Your task to perform on an android device: Open internet settings Image 0: 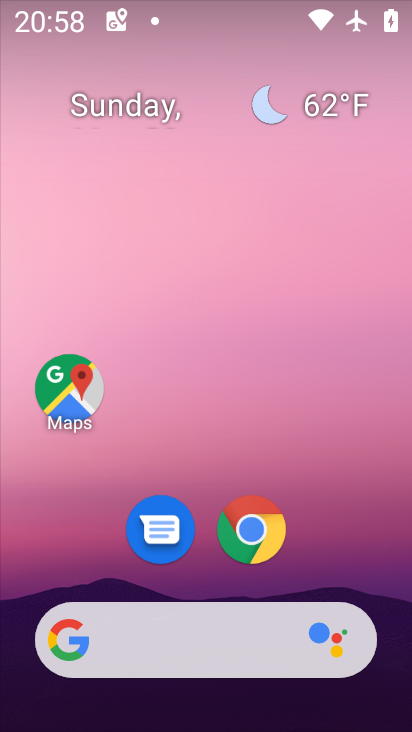
Step 0: drag from (230, 597) to (208, 211)
Your task to perform on an android device: Open internet settings Image 1: 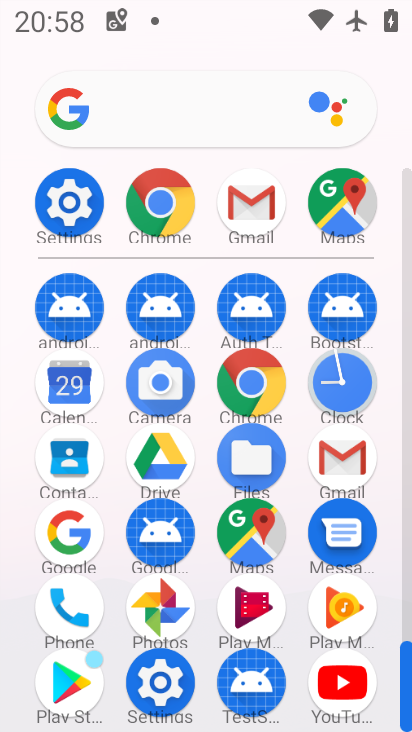
Step 1: click (67, 223)
Your task to perform on an android device: Open internet settings Image 2: 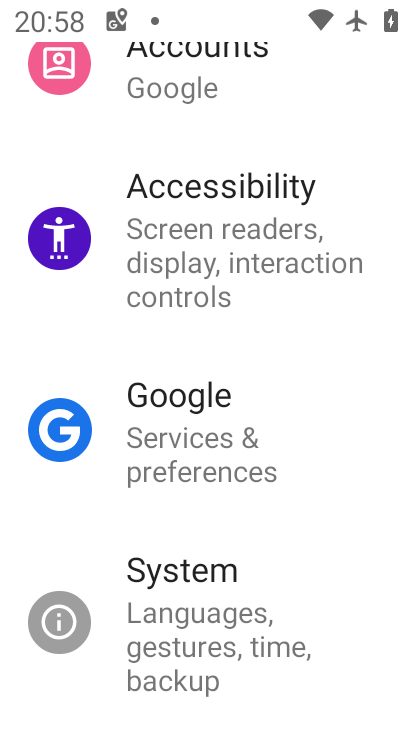
Step 2: drag from (182, 142) to (198, 495)
Your task to perform on an android device: Open internet settings Image 3: 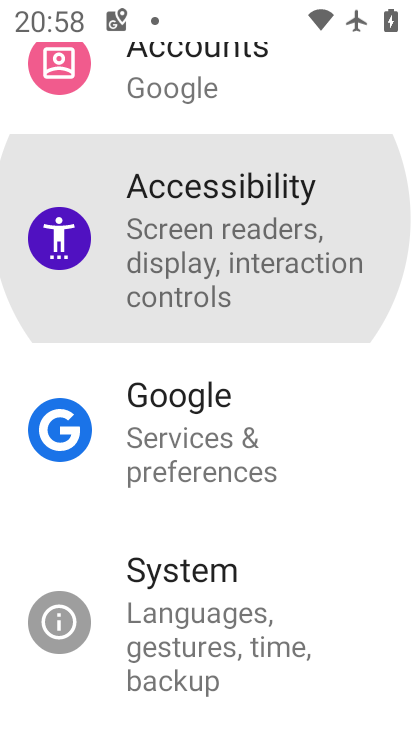
Step 3: drag from (176, 304) to (206, 700)
Your task to perform on an android device: Open internet settings Image 4: 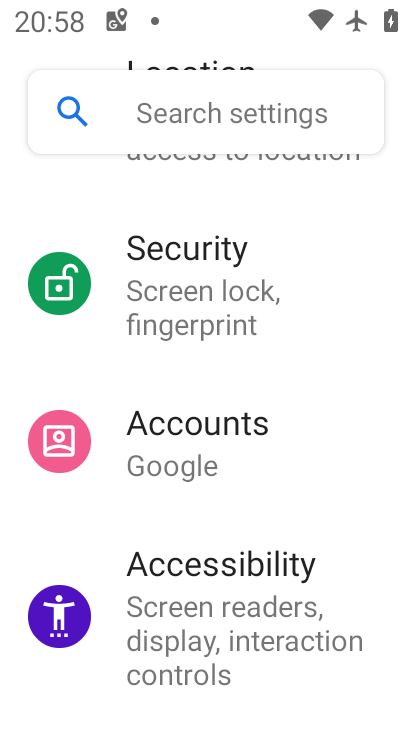
Step 4: drag from (135, 252) to (214, 709)
Your task to perform on an android device: Open internet settings Image 5: 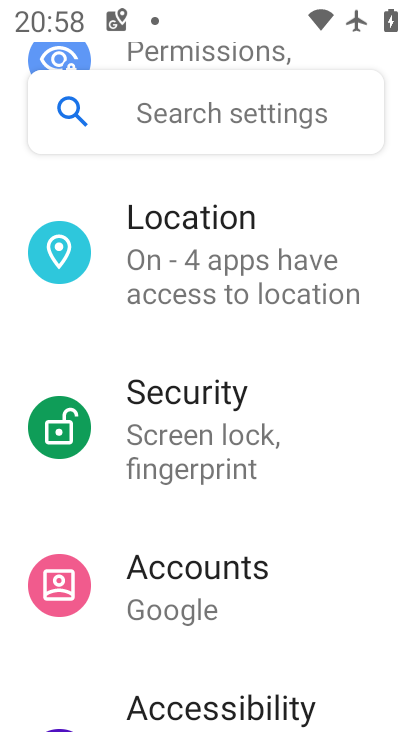
Step 5: drag from (215, 241) to (250, 698)
Your task to perform on an android device: Open internet settings Image 6: 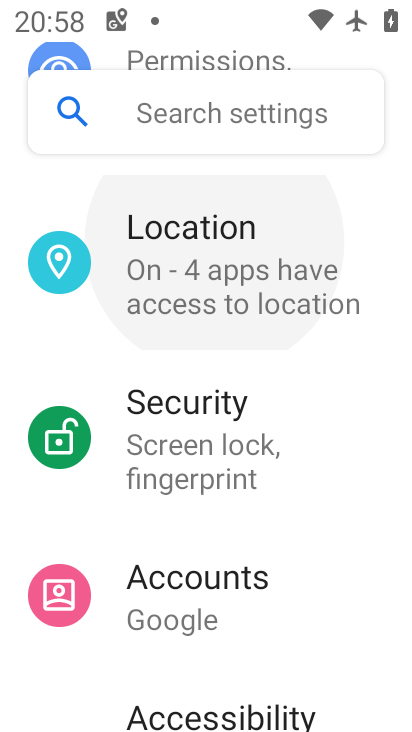
Step 6: drag from (204, 173) to (203, 645)
Your task to perform on an android device: Open internet settings Image 7: 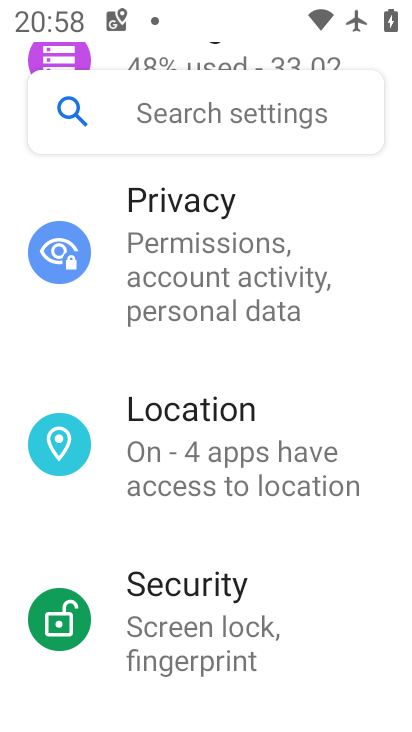
Step 7: drag from (182, 263) to (179, 715)
Your task to perform on an android device: Open internet settings Image 8: 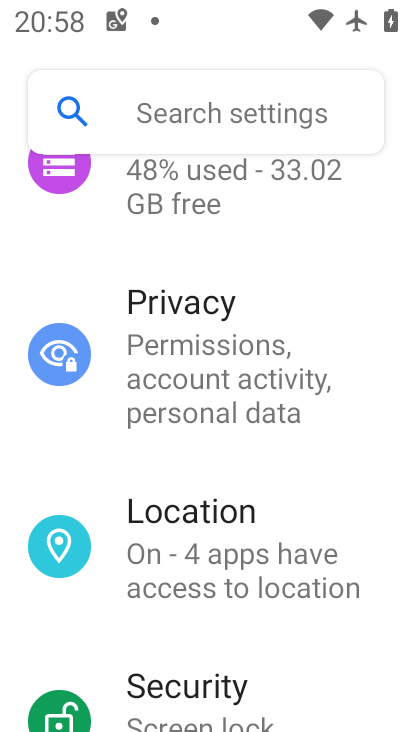
Step 8: drag from (174, 466) to (179, 664)
Your task to perform on an android device: Open internet settings Image 9: 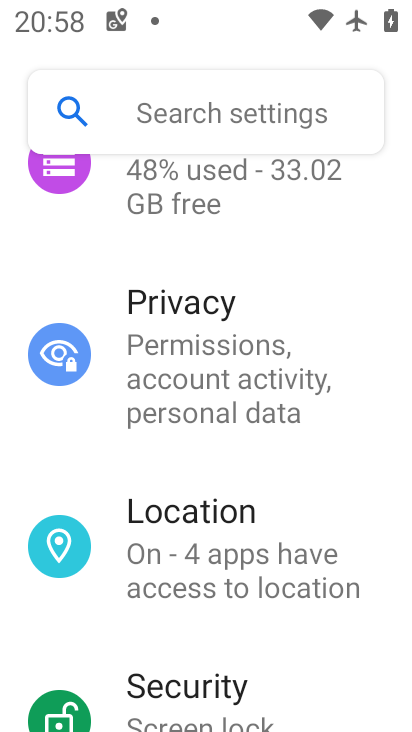
Step 9: drag from (178, 189) to (181, 692)
Your task to perform on an android device: Open internet settings Image 10: 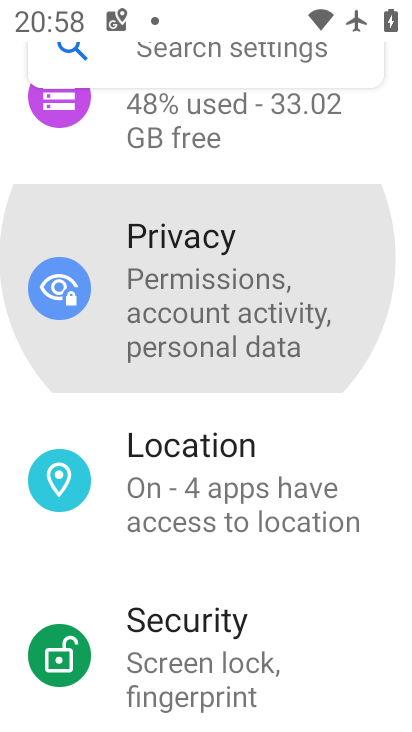
Step 10: drag from (194, 410) to (219, 601)
Your task to perform on an android device: Open internet settings Image 11: 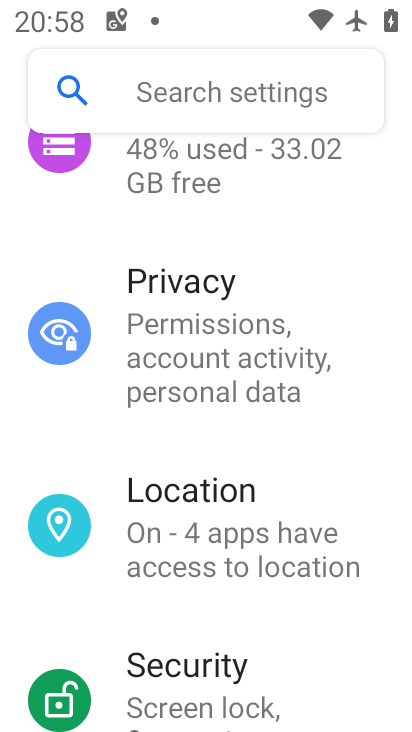
Step 11: drag from (234, 613) to (184, 611)
Your task to perform on an android device: Open internet settings Image 12: 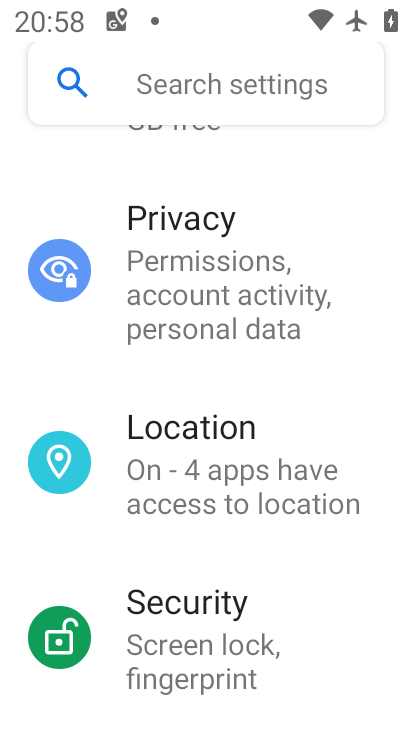
Step 12: drag from (229, 338) to (240, 628)
Your task to perform on an android device: Open internet settings Image 13: 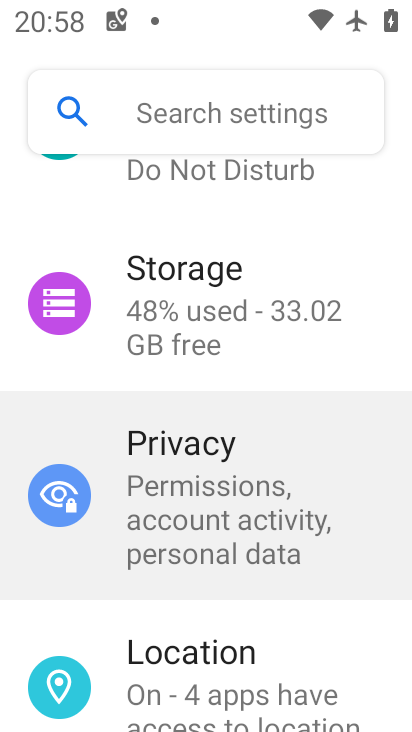
Step 13: drag from (256, 385) to (272, 599)
Your task to perform on an android device: Open internet settings Image 14: 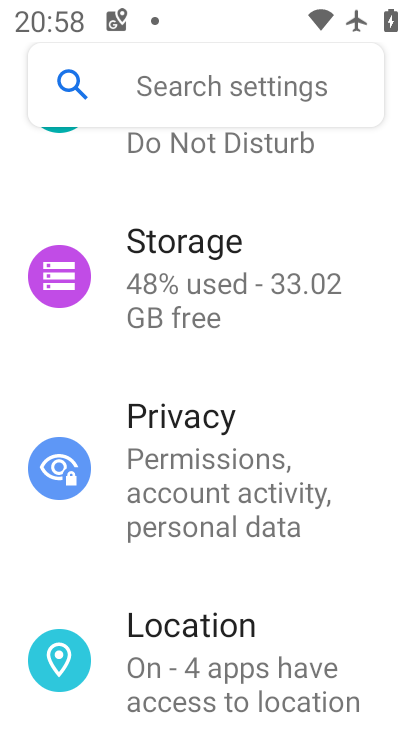
Step 14: drag from (222, 87) to (206, 404)
Your task to perform on an android device: Open internet settings Image 15: 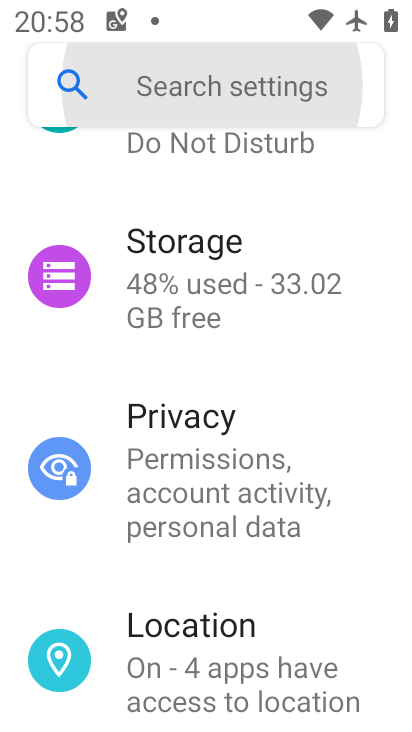
Step 15: drag from (165, 132) to (180, 596)
Your task to perform on an android device: Open internet settings Image 16: 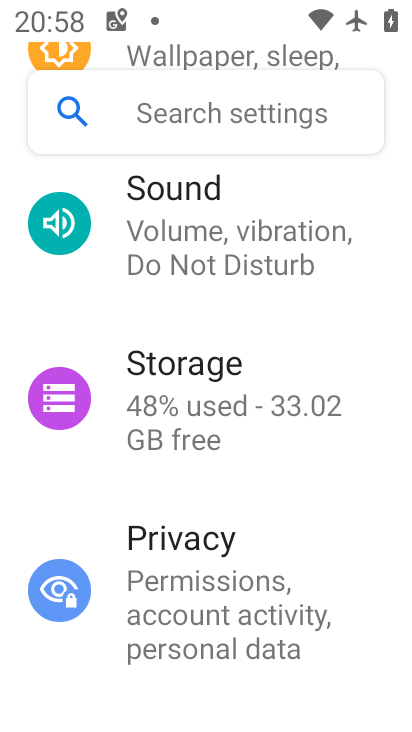
Step 16: drag from (185, 220) to (249, 628)
Your task to perform on an android device: Open internet settings Image 17: 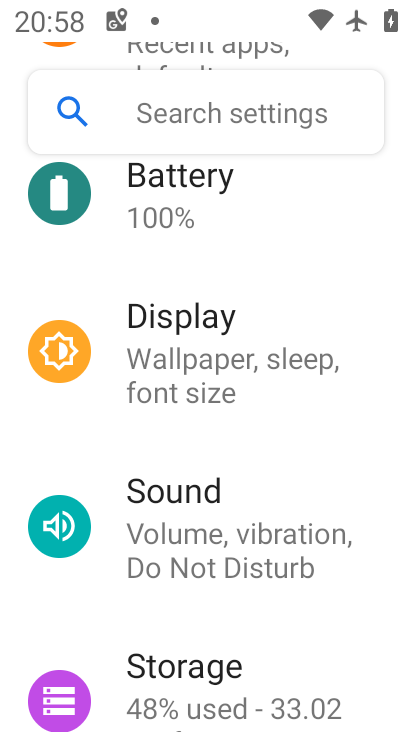
Step 17: drag from (230, 336) to (326, 719)
Your task to perform on an android device: Open internet settings Image 18: 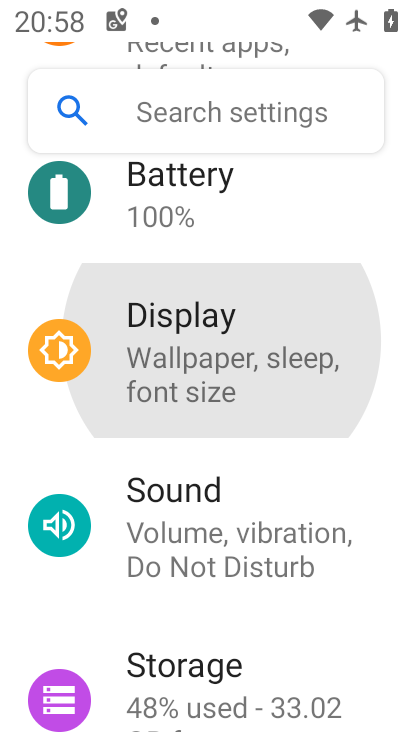
Step 18: drag from (224, 179) to (263, 673)
Your task to perform on an android device: Open internet settings Image 19: 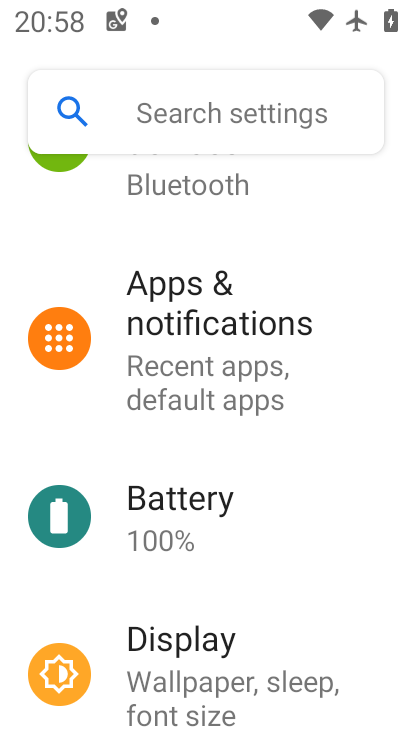
Step 19: drag from (162, 376) to (207, 718)
Your task to perform on an android device: Open internet settings Image 20: 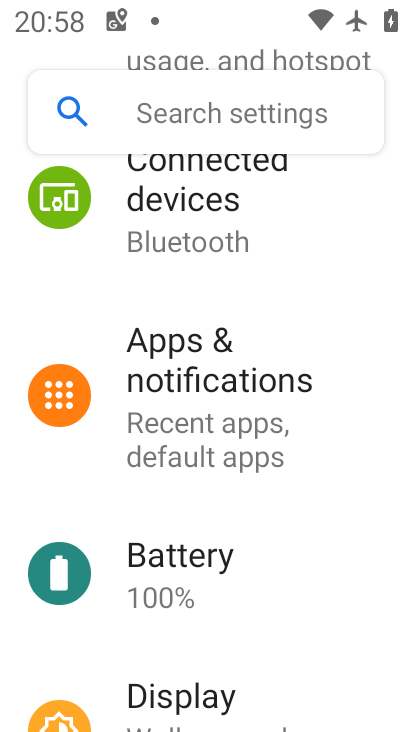
Step 20: drag from (280, 233) to (286, 556)
Your task to perform on an android device: Open internet settings Image 21: 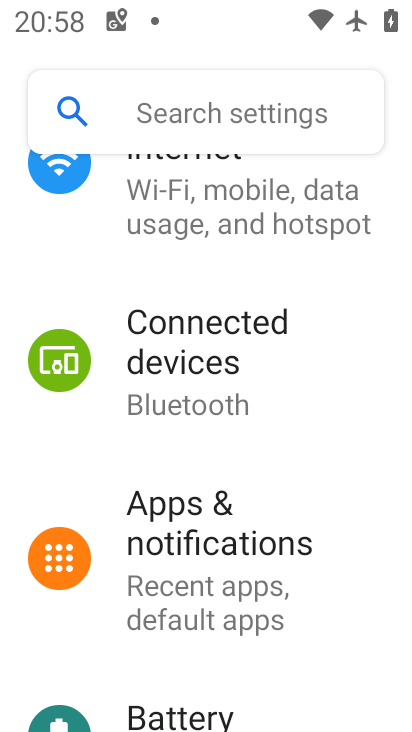
Step 21: drag from (208, 201) to (233, 500)
Your task to perform on an android device: Open internet settings Image 22: 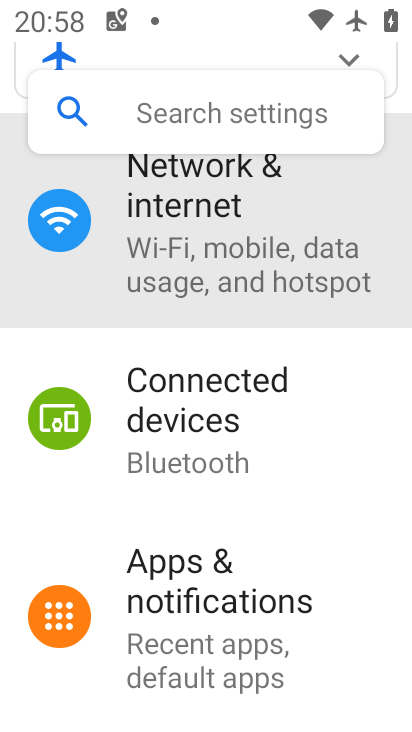
Step 22: drag from (230, 180) to (264, 599)
Your task to perform on an android device: Open internet settings Image 23: 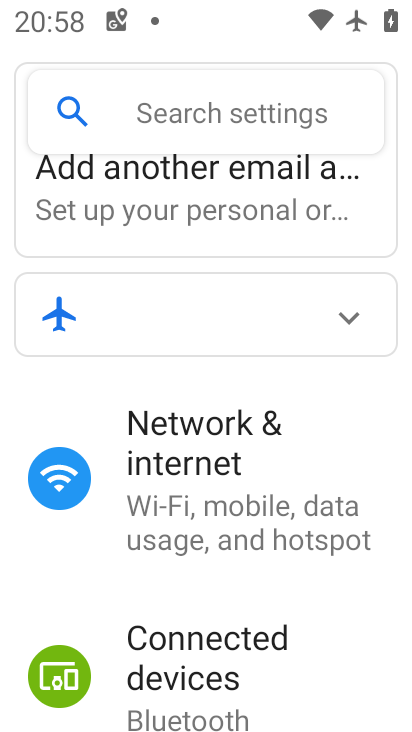
Step 23: drag from (206, 217) to (260, 561)
Your task to perform on an android device: Open internet settings Image 24: 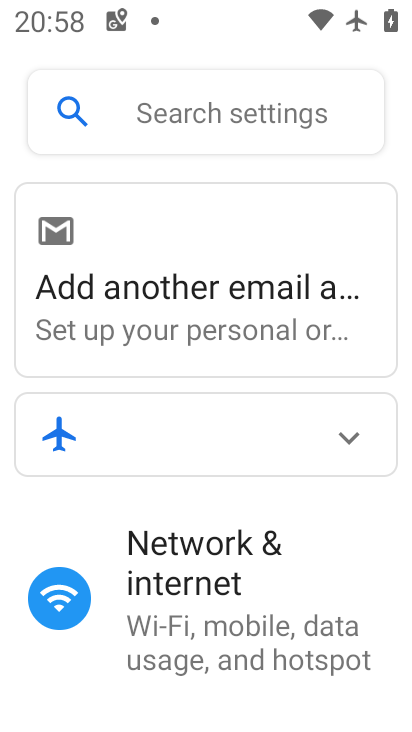
Step 24: click (184, 571)
Your task to perform on an android device: Open internet settings Image 25: 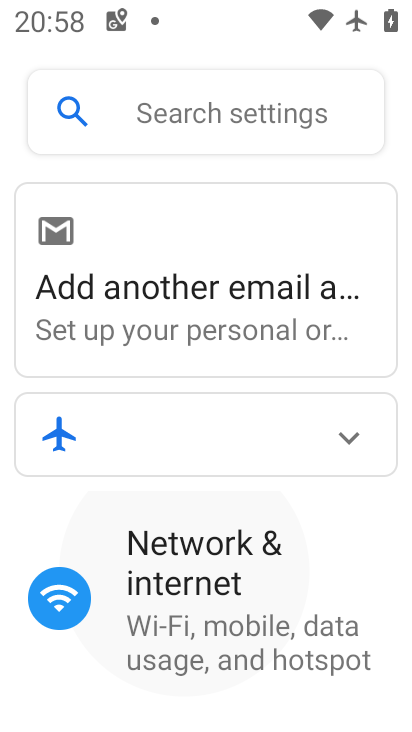
Step 25: click (185, 568)
Your task to perform on an android device: Open internet settings Image 26: 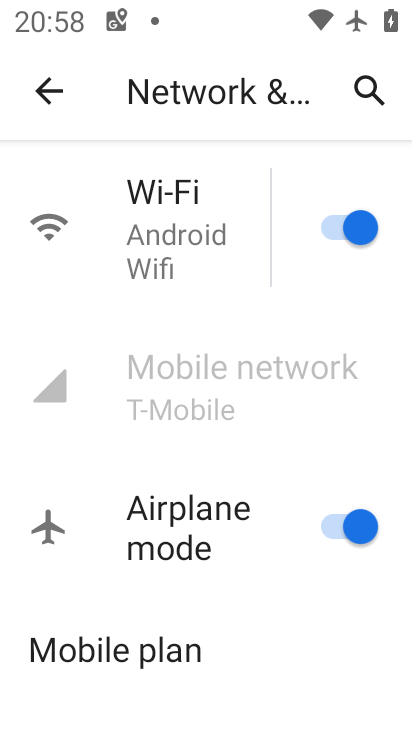
Step 26: task complete